Your task to perform on an android device: set default search engine in the chrome app Image 0: 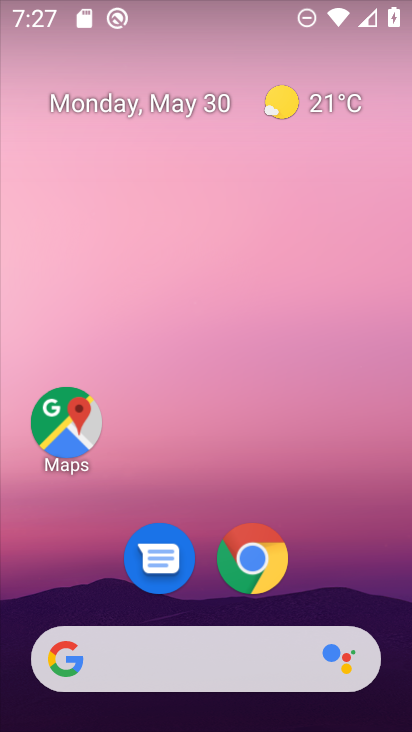
Step 0: click (243, 557)
Your task to perform on an android device: set default search engine in the chrome app Image 1: 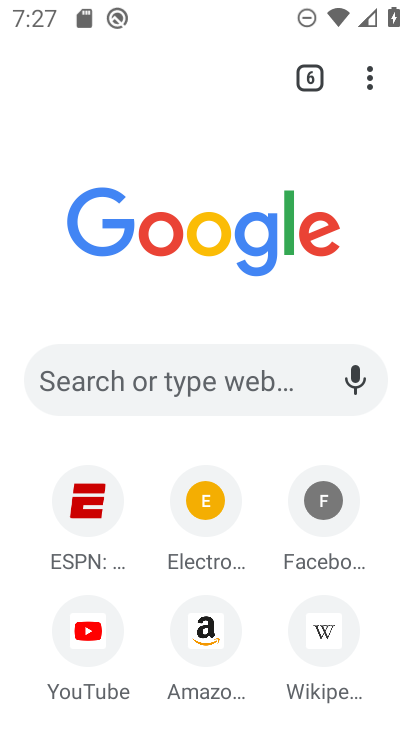
Step 1: click (375, 79)
Your task to perform on an android device: set default search engine in the chrome app Image 2: 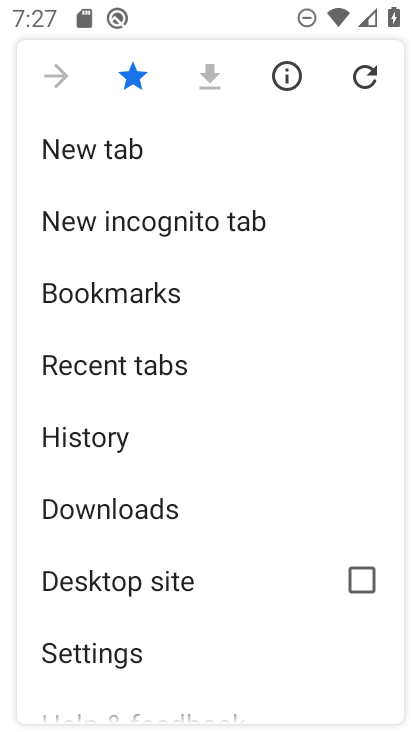
Step 2: click (100, 645)
Your task to perform on an android device: set default search engine in the chrome app Image 3: 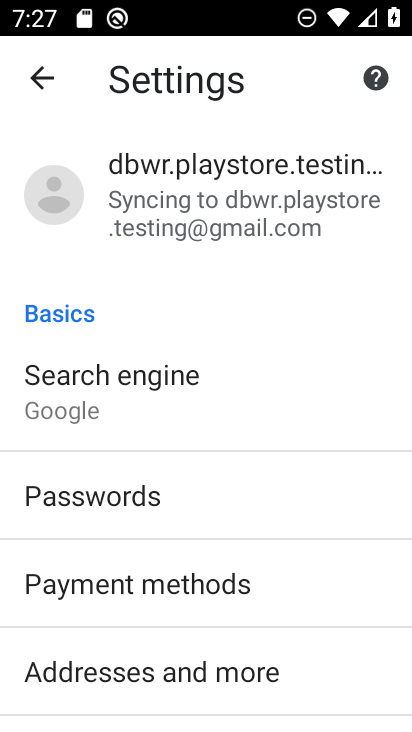
Step 3: click (98, 376)
Your task to perform on an android device: set default search engine in the chrome app Image 4: 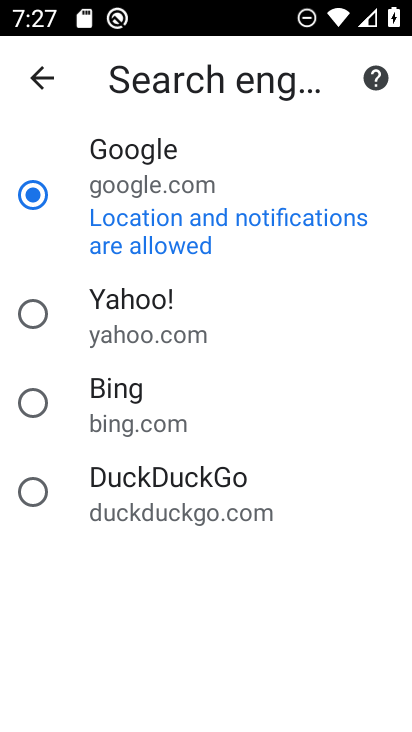
Step 4: task complete